Your task to perform on an android device: Open the calendar app, open the side menu, and click the "Day" option Image 0: 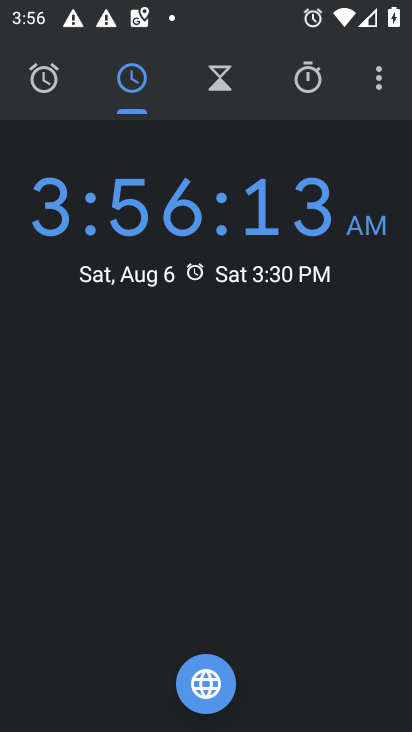
Step 0: press home button
Your task to perform on an android device: Open the calendar app, open the side menu, and click the "Day" option Image 1: 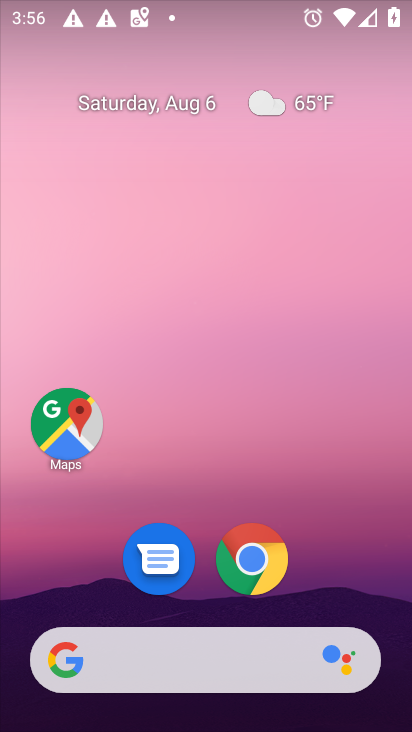
Step 1: drag from (295, 281) to (260, 38)
Your task to perform on an android device: Open the calendar app, open the side menu, and click the "Day" option Image 2: 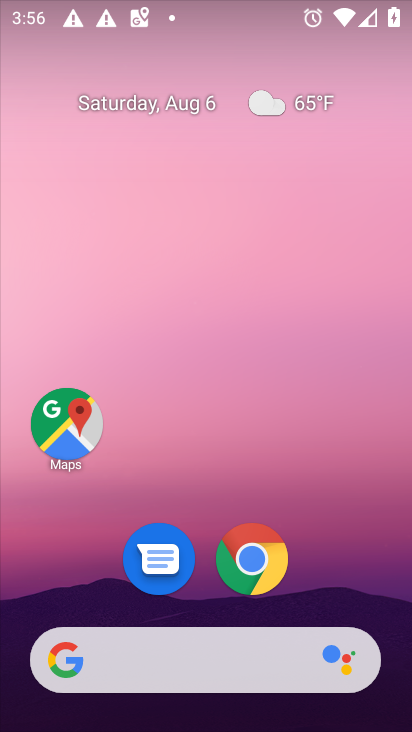
Step 2: drag from (340, 567) to (344, 0)
Your task to perform on an android device: Open the calendar app, open the side menu, and click the "Day" option Image 3: 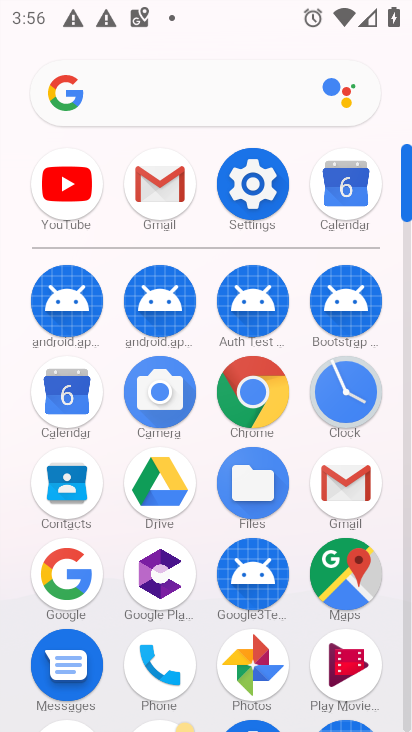
Step 3: click (342, 175)
Your task to perform on an android device: Open the calendar app, open the side menu, and click the "Day" option Image 4: 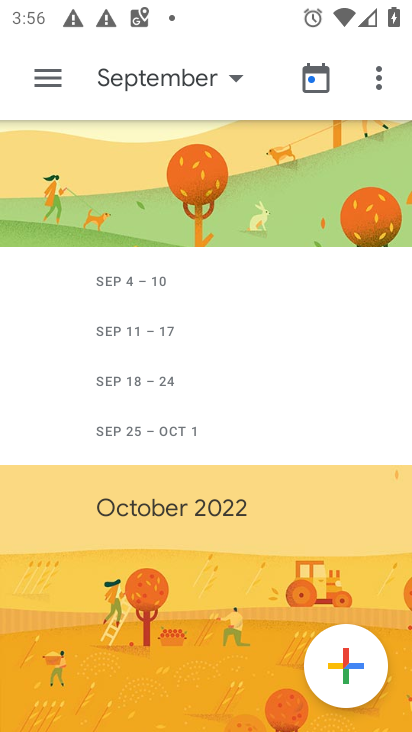
Step 4: click (56, 82)
Your task to perform on an android device: Open the calendar app, open the side menu, and click the "Day" option Image 5: 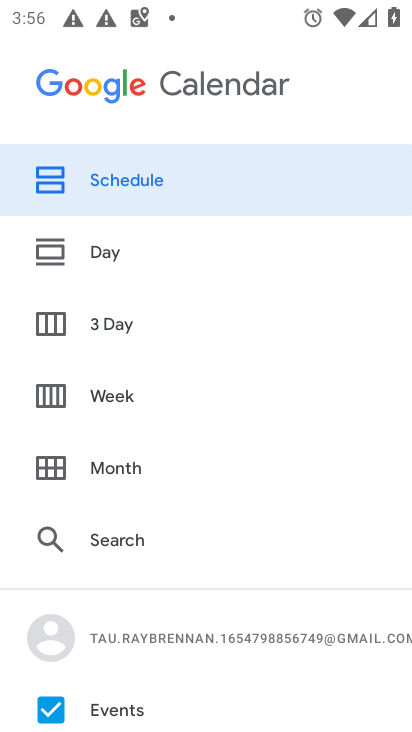
Step 5: click (47, 252)
Your task to perform on an android device: Open the calendar app, open the side menu, and click the "Day" option Image 6: 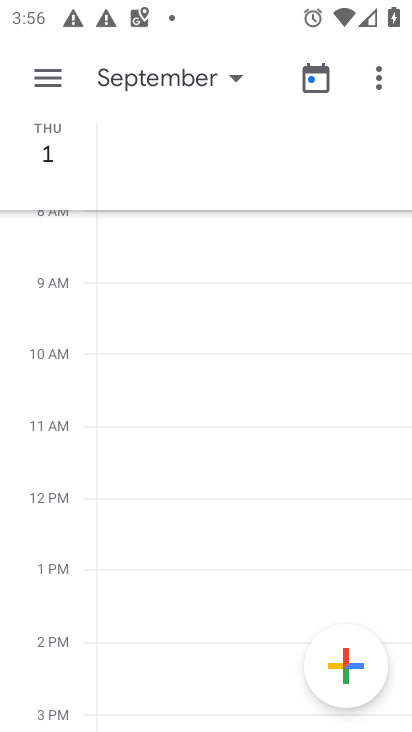
Step 6: task complete